Your task to perform on an android device: Go to wifi settings Image 0: 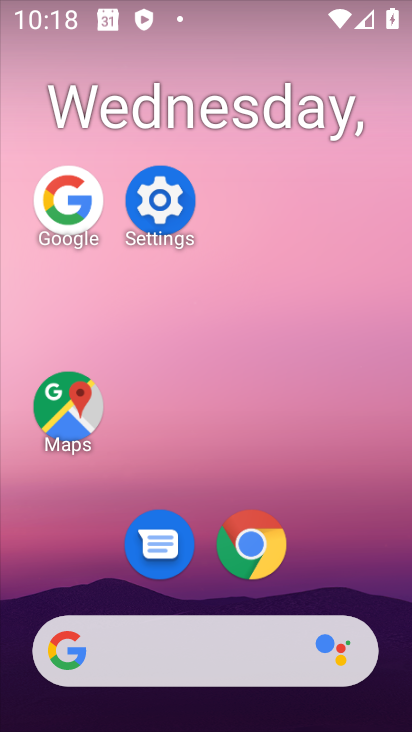
Step 0: click (157, 206)
Your task to perform on an android device: Go to wifi settings Image 1: 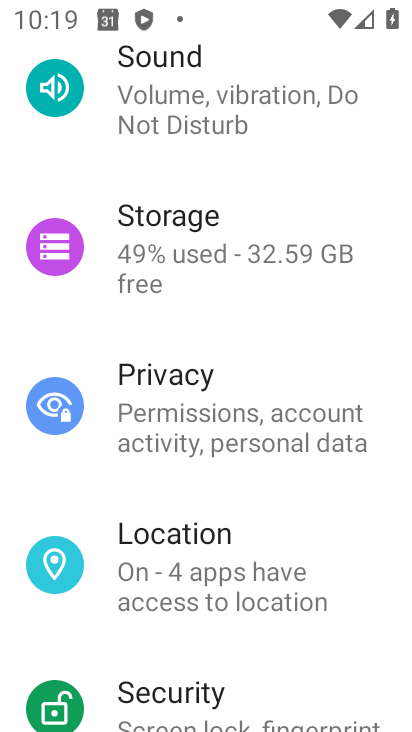
Step 1: drag from (351, 189) to (345, 617)
Your task to perform on an android device: Go to wifi settings Image 2: 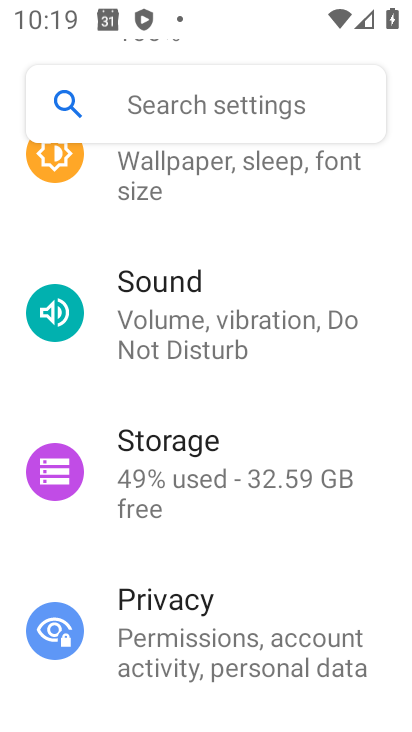
Step 2: drag from (240, 232) to (309, 617)
Your task to perform on an android device: Go to wifi settings Image 3: 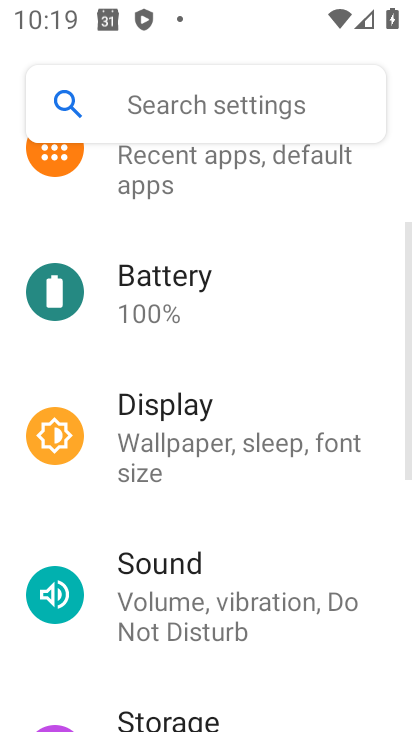
Step 3: drag from (233, 242) to (269, 608)
Your task to perform on an android device: Go to wifi settings Image 4: 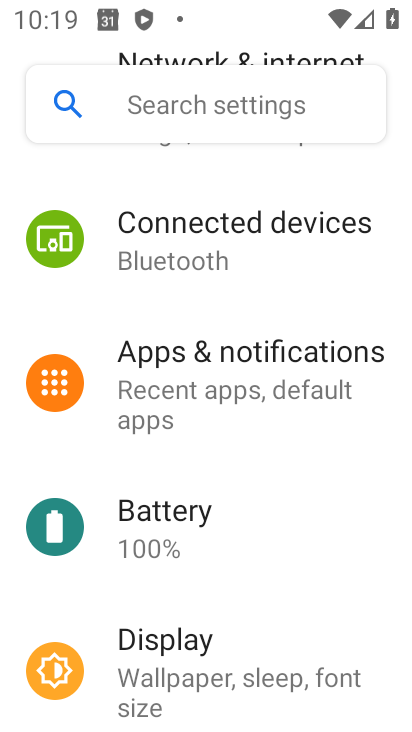
Step 4: drag from (244, 324) to (262, 569)
Your task to perform on an android device: Go to wifi settings Image 5: 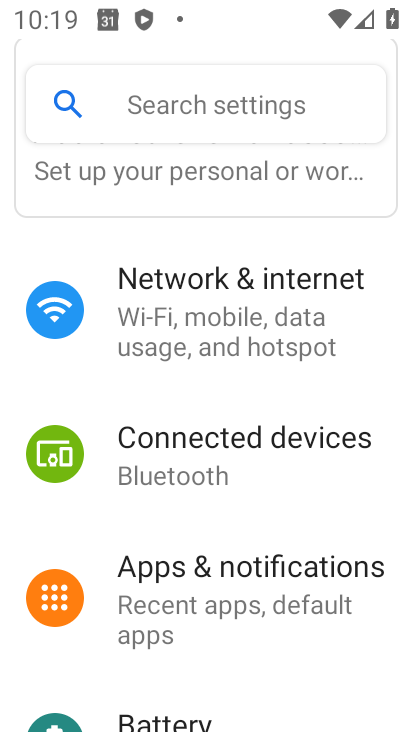
Step 5: click (283, 329)
Your task to perform on an android device: Go to wifi settings Image 6: 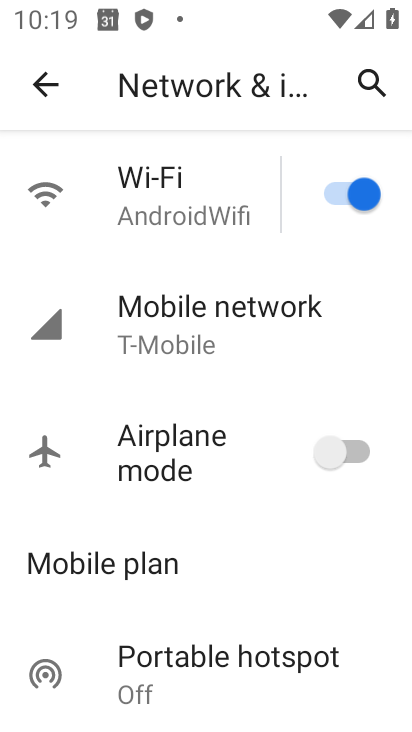
Step 6: click (190, 193)
Your task to perform on an android device: Go to wifi settings Image 7: 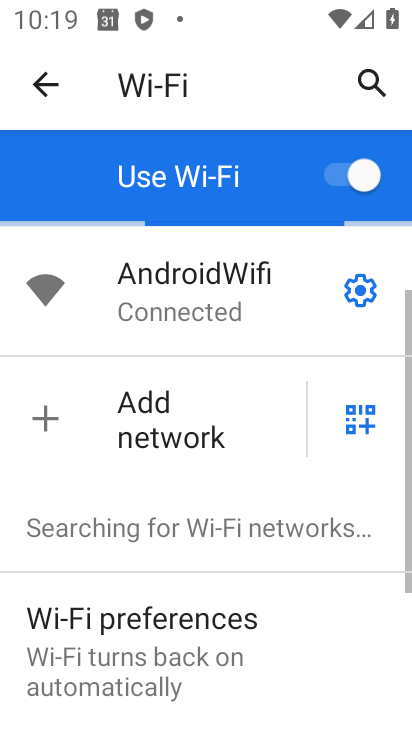
Step 7: click (369, 283)
Your task to perform on an android device: Go to wifi settings Image 8: 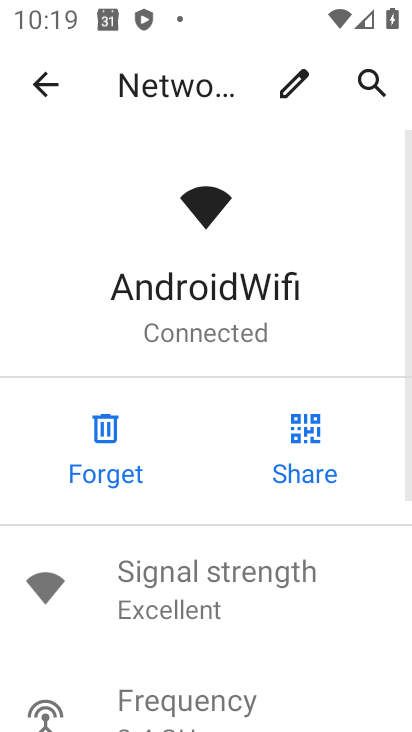
Step 8: task complete